Your task to perform on an android device: check google app version Image 0: 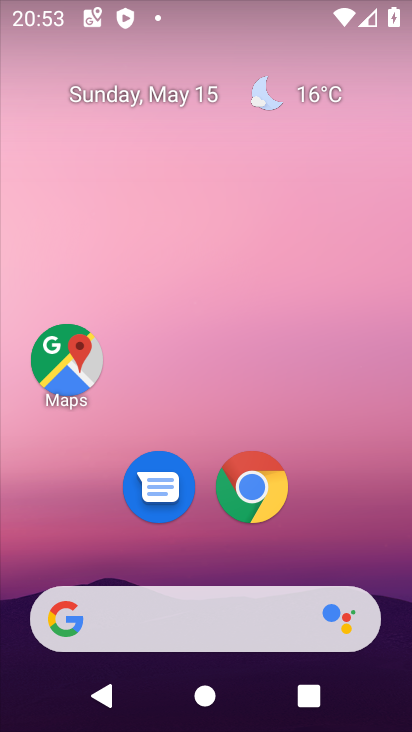
Step 0: drag from (410, 571) to (406, 386)
Your task to perform on an android device: check google app version Image 1: 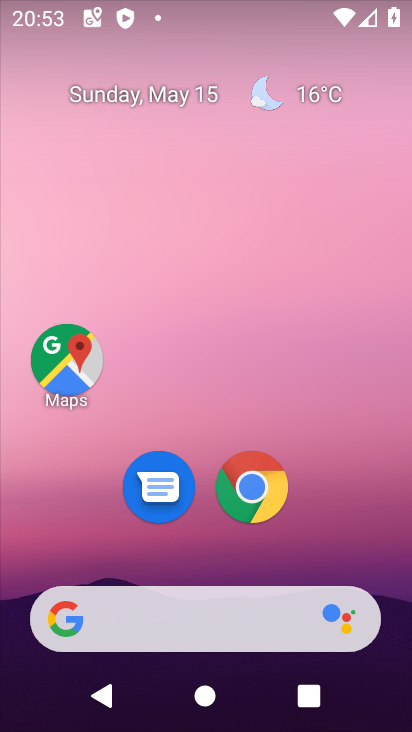
Step 1: drag from (388, 621) to (331, 196)
Your task to perform on an android device: check google app version Image 2: 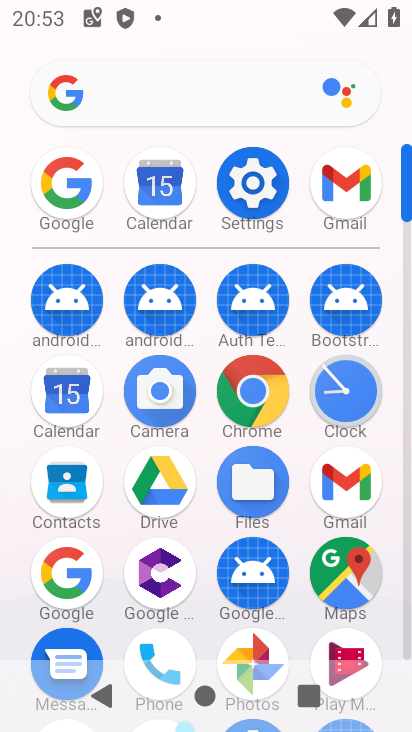
Step 2: click (67, 577)
Your task to perform on an android device: check google app version Image 3: 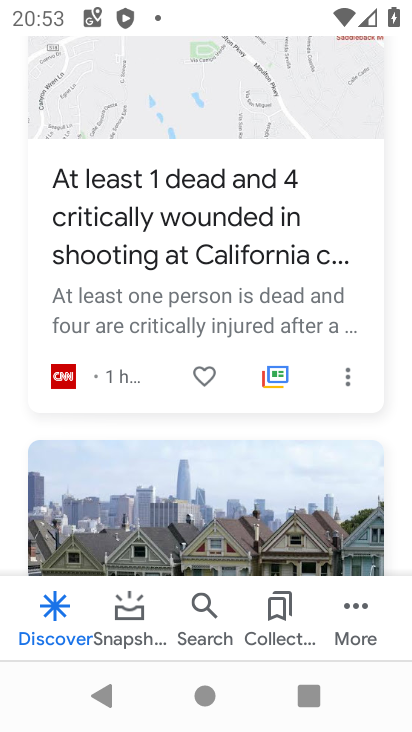
Step 3: click (347, 634)
Your task to perform on an android device: check google app version Image 4: 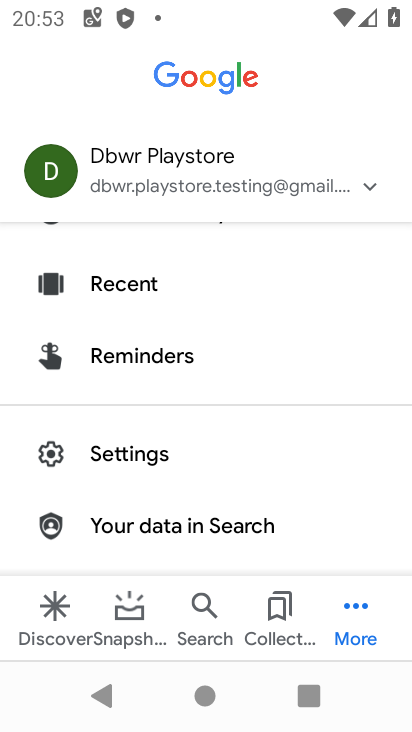
Step 4: click (99, 456)
Your task to perform on an android device: check google app version Image 5: 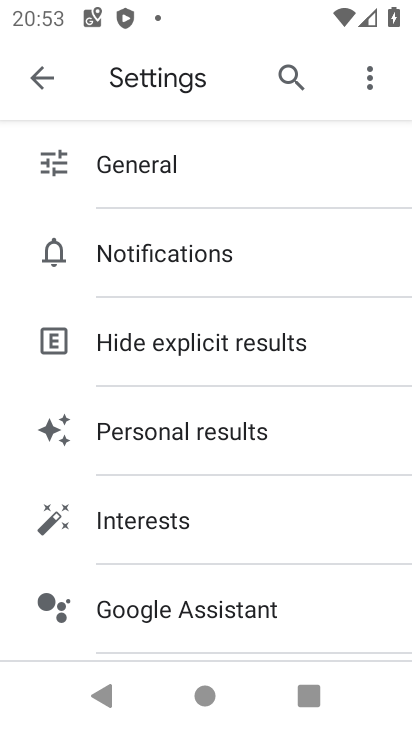
Step 5: drag from (300, 607) to (329, 361)
Your task to perform on an android device: check google app version Image 6: 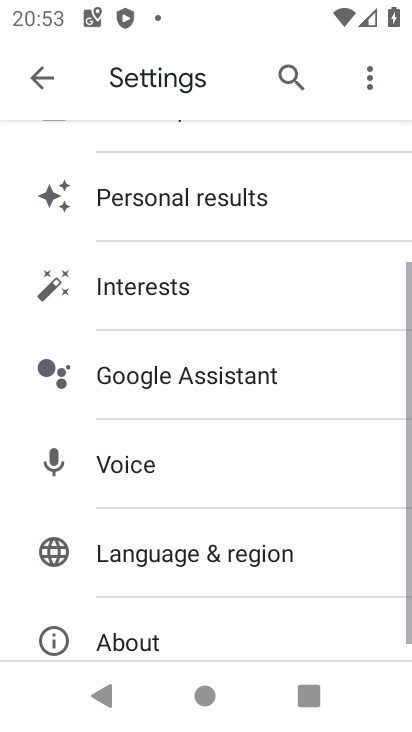
Step 6: click (148, 634)
Your task to perform on an android device: check google app version Image 7: 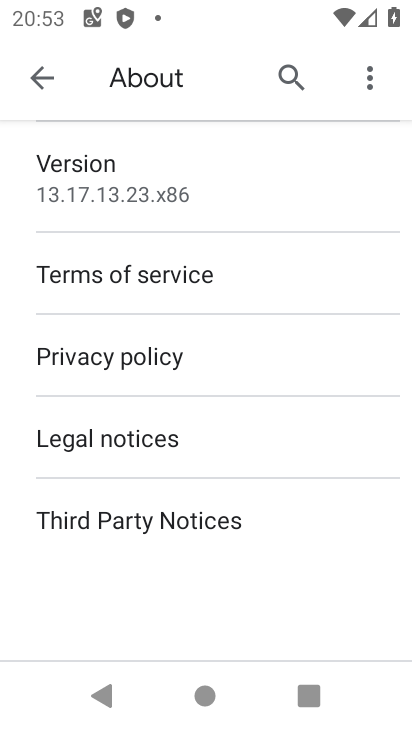
Step 7: click (171, 186)
Your task to perform on an android device: check google app version Image 8: 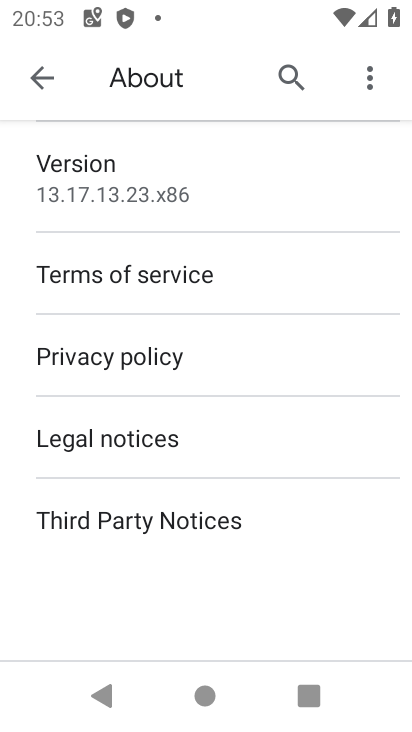
Step 8: task complete